Your task to perform on an android device: Open Youtube and go to "Your channel" Image 0: 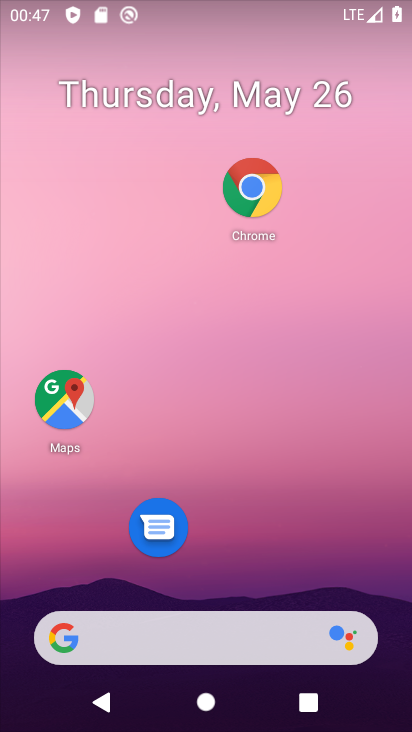
Step 0: drag from (195, 589) to (190, 40)
Your task to perform on an android device: Open Youtube and go to "Your channel" Image 1: 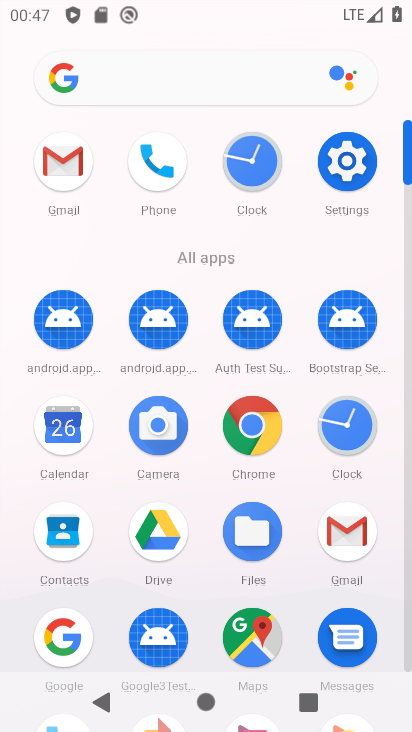
Step 1: drag from (201, 658) to (255, 125)
Your task to perform on an android device: Open Youtube and go to "Your channel" Image 2: 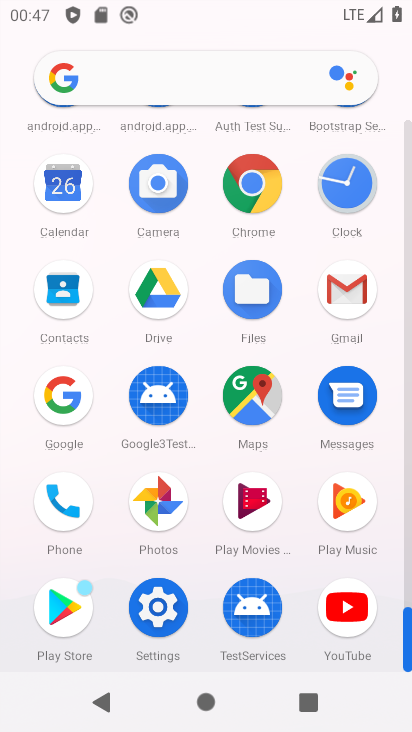
Step 2: click (339, 607)
Your task to perform on an android device: Open Youtube and go to "Your channel" Image 3: 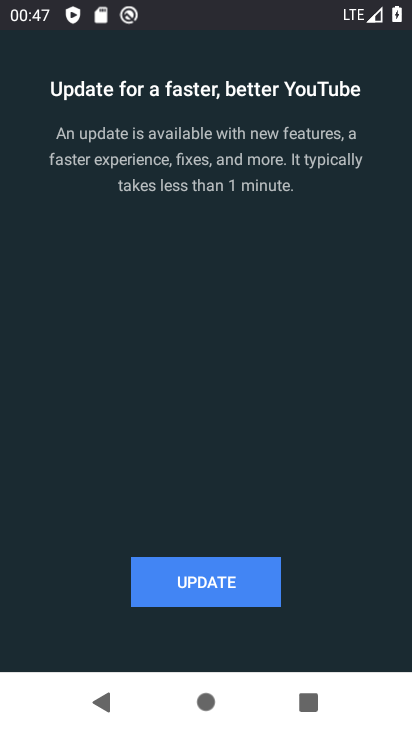
Step 3: click (179, 592)
Your task to perform on an android device: Open Youtube and go to "Your channel" Image 4: 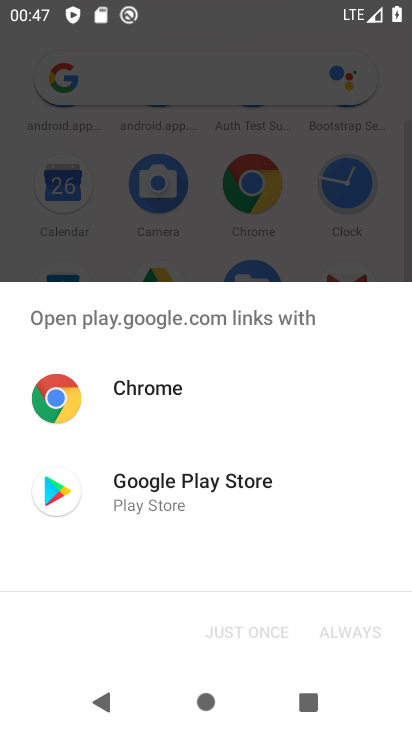
Step 4: click (151, 505)
Your task to perform on an android device: Open Youtube and go to "Your channel" Image 5: 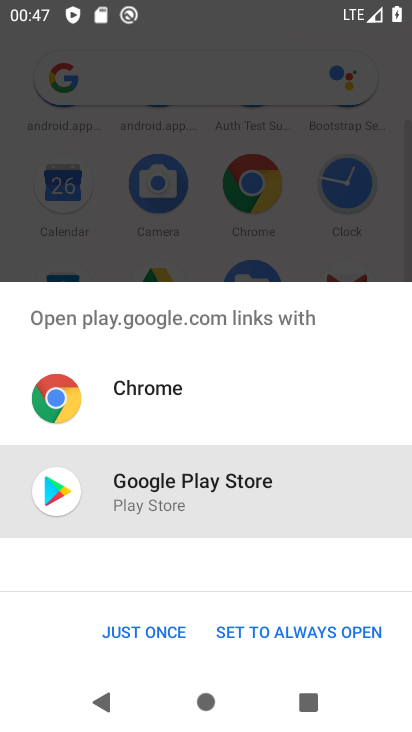
Step 5: click (108, 627)
Your task to perform on an android device: Open Youtube and go to "Your channel" Image 6: 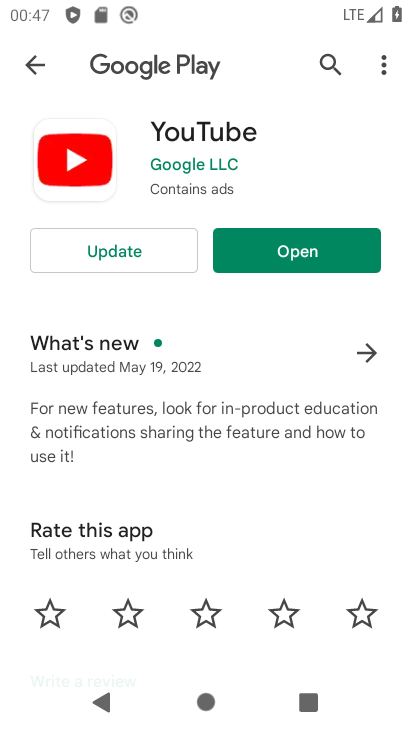
Step 6: click (99, 250)
Your task to perform on an android device: Open Youtube and go to "Your channel" Image 7: 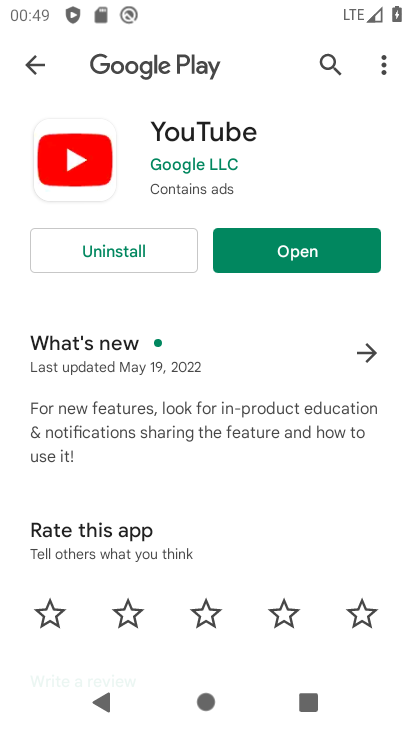
Step 7: click (269, 232)
Your task to perform on an android device: Open Youtube and go to "Your channel" Image 8: 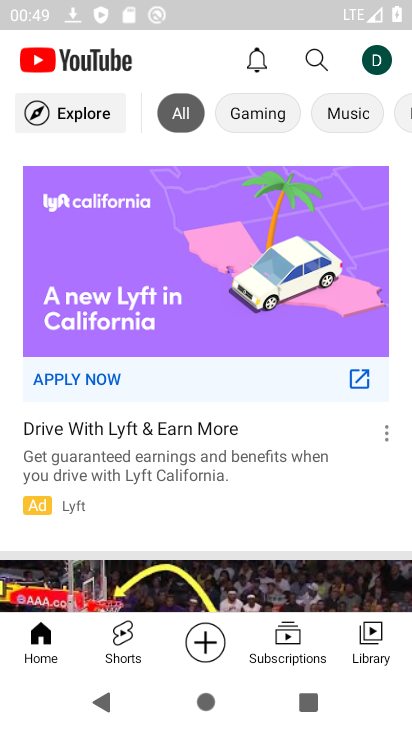
Step 8: click (309, 61)
Your task to perform on an android device: Open Youtube and go to "Your channel" Image 9: 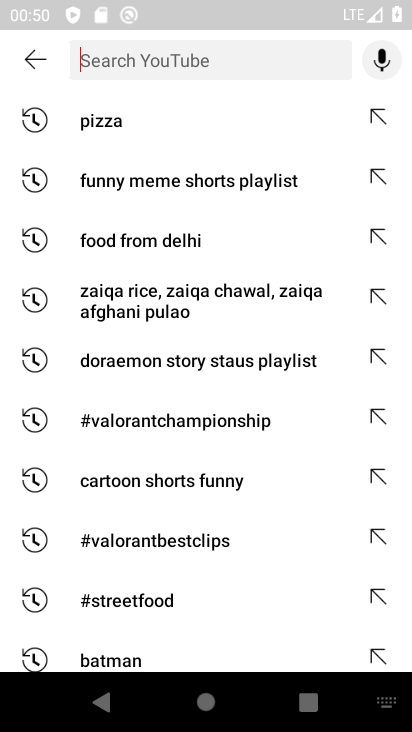
Step 9: type "your channel"
Your task to perform on an android device: Open Youtube and go to "Your channel" Image 10: 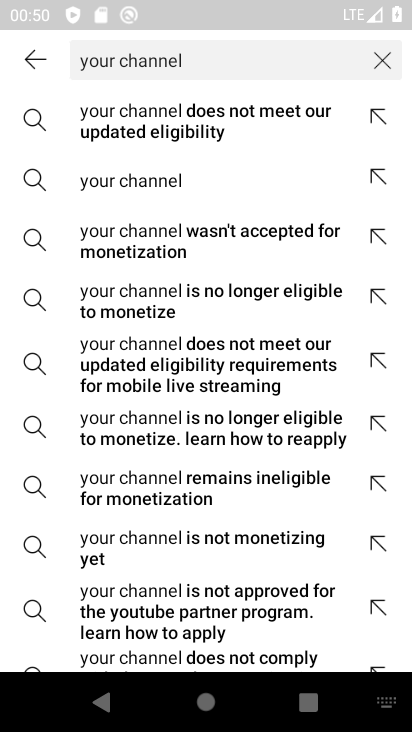
Step 10: click (101, 187)
Your task to perform on an android device: Open Youtube and go to "Your channel" Image 11: 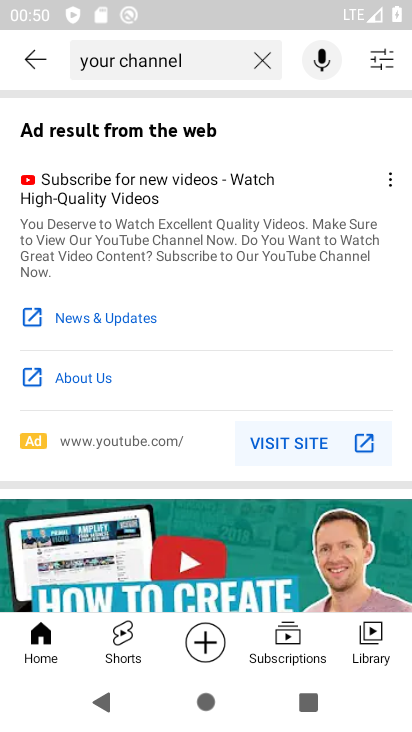
Step 11: task complete